Your task to perform on an android device: turn on showing notifications on the lock screen Image 0: 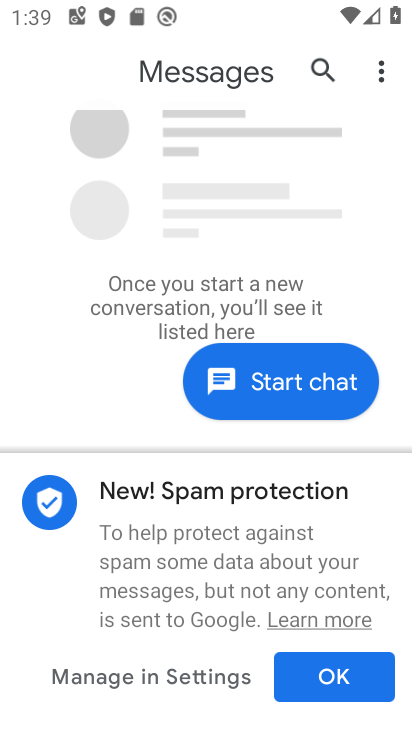
Step 0: press home button
Your task to perform on an android device: turn on showing notifications on the lock screen Image 1: 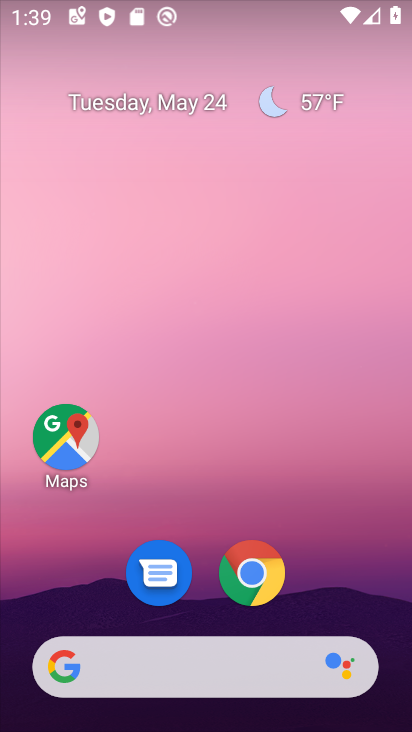
Step 1: drag from (342, 522) to (356, 117)
Your task to perform on an android device: turn on showing notifications on the lock screen Image 2: 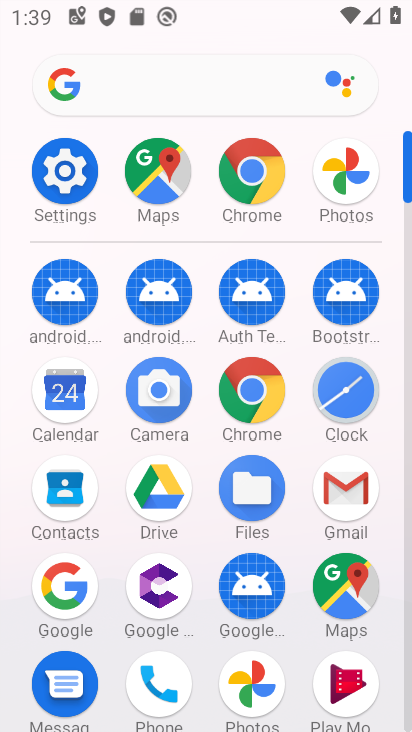
Step 2: click (31, 167)
Your task to perform on an android device: turn on showing notifications on the lock screen Image 3: 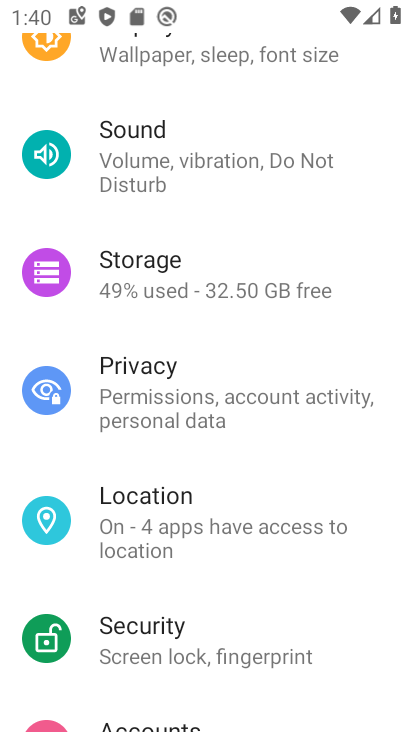
Step 3: drag from (307, 151) to (303, 481)
Your task to perform on an android device: turn on showing notifications on the lock screen Image 4: 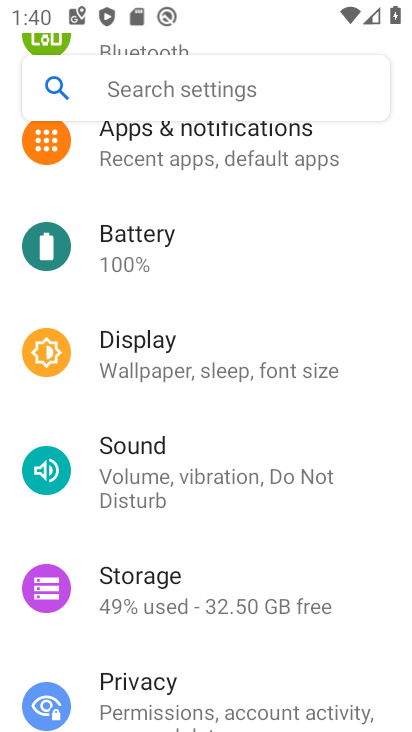
Step 4: drag from (336, 177) to (313, 596)
Your task to perform on an android device: turn on showing notifications on the lock screen Image 5: 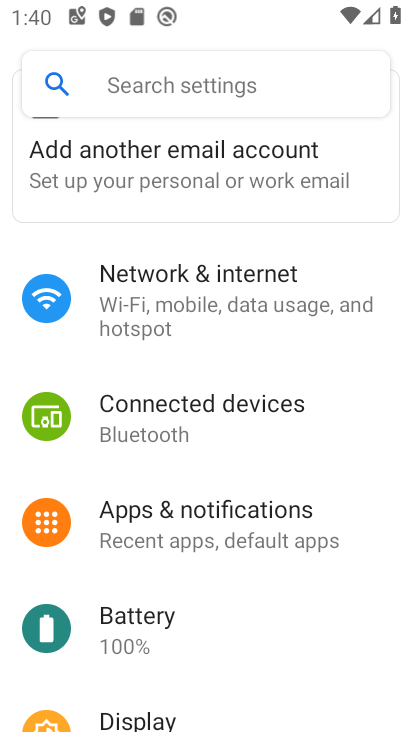
Step 5: click (231, 523)
Your task to perform on an android device: turn on showing notifications on the lock screen Image 6: 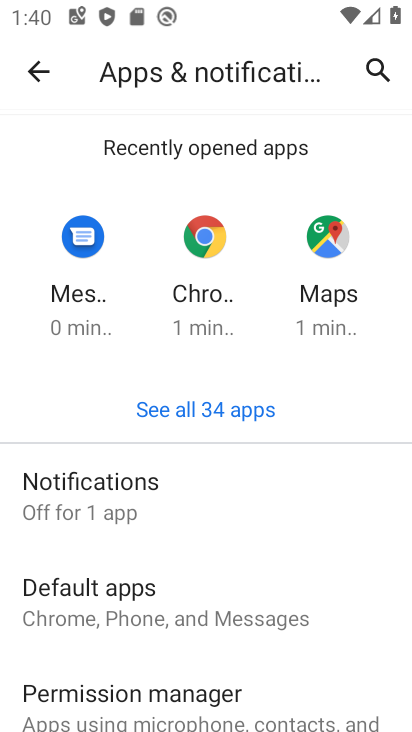
Step 6: click (147, 482)
Your task to perform on an android device: turn on showing notifications on the lock screen Image 7: 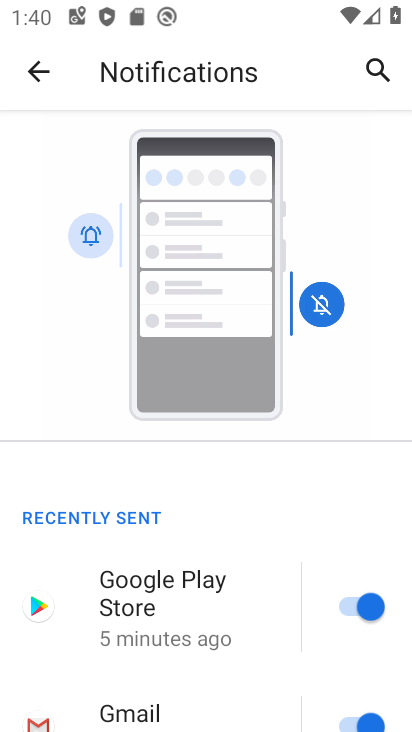
Step 7: drag from (164, 648) to (237, 282)
Your task to perform on an android device: turn on showing notifications on the lock screen Image 8: 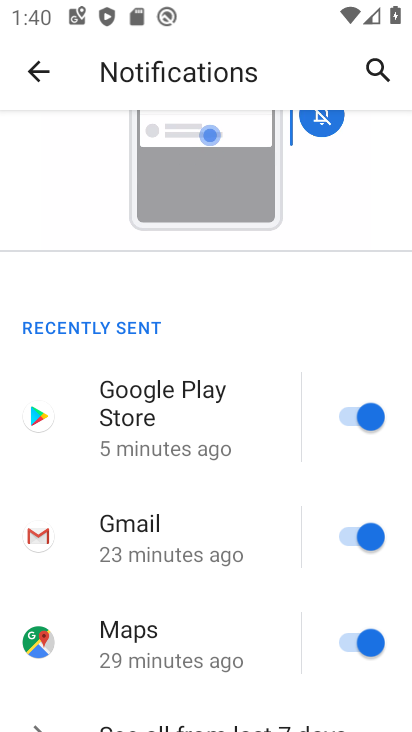
Step 8: drag from (223, 628) to (246, 229)
Your task to perform on an android device: turn on showing notifications on the lock screen Image 9: 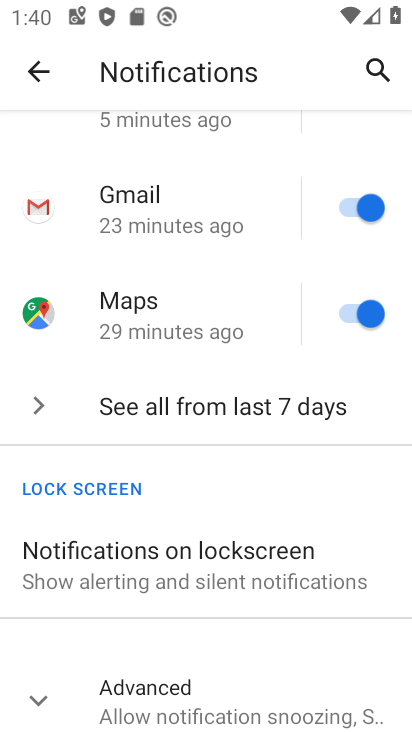
Step 9: drag from (231, 639) to (266, 171)
Your task to perform on an android device: turn on showing notifications on the lock screen Image 10: 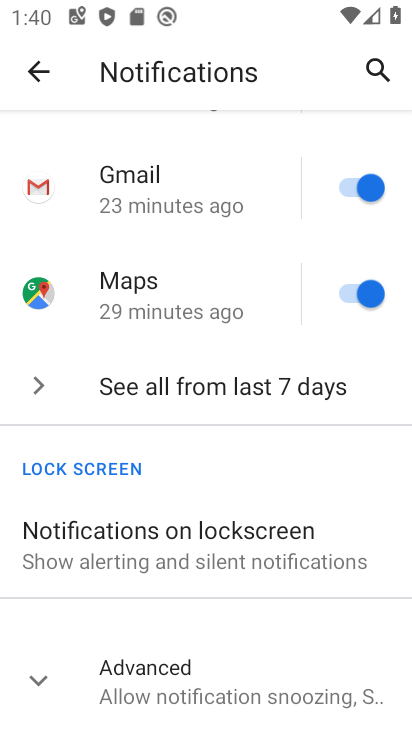
Step 10: click (196, 527)
Your task to perform on an android device: turn on showing notifications on the lock screen Image 11: 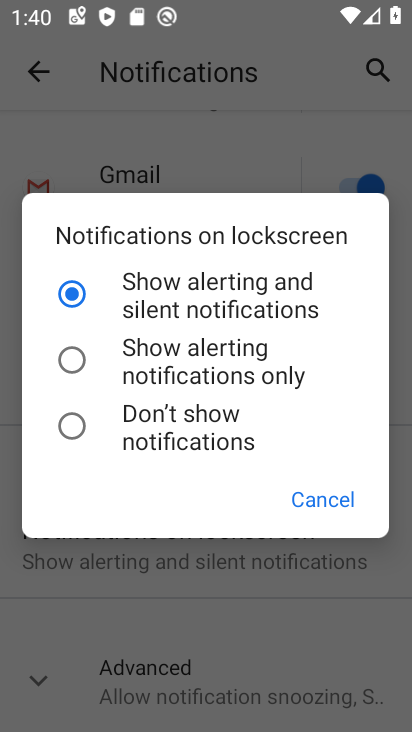
Step 11: task complete